Your task to perform on an android device: Open Google Chrome and open the bookmarks view Image 0: 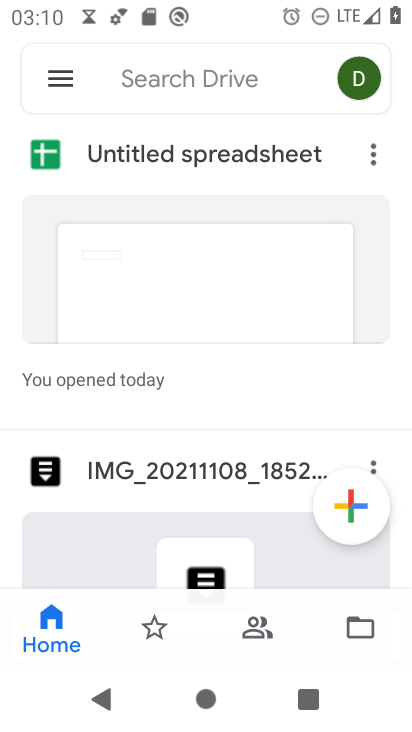
Step 0: press home button
Your task to perform on an android device: Open Google Chrome and open the bookmarks view Image 1: 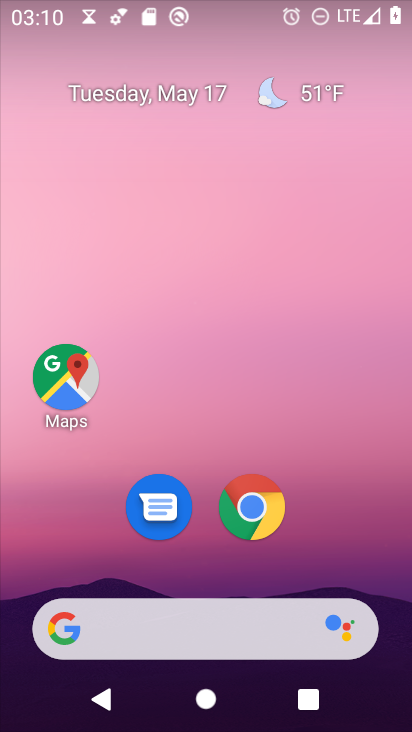
Step 1: click (242, 511)
Your task to perform on an android device: Open Google Chrome and open the bookmarks view Image 2: 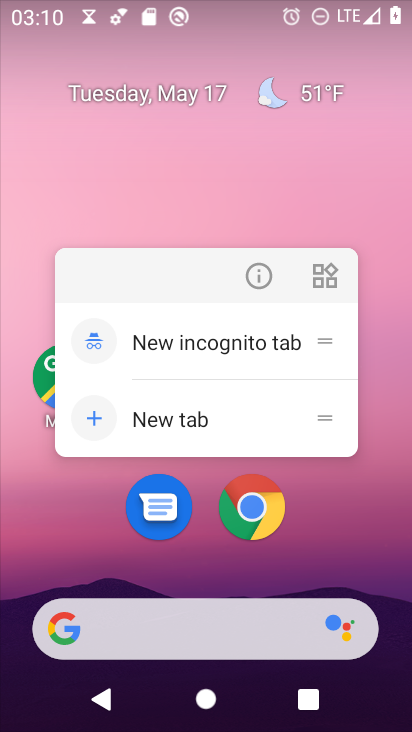
Step 2: click (238, 504)
Your task to perform on an android device: Open Google Chrome and open the bookmarks view Image 3: 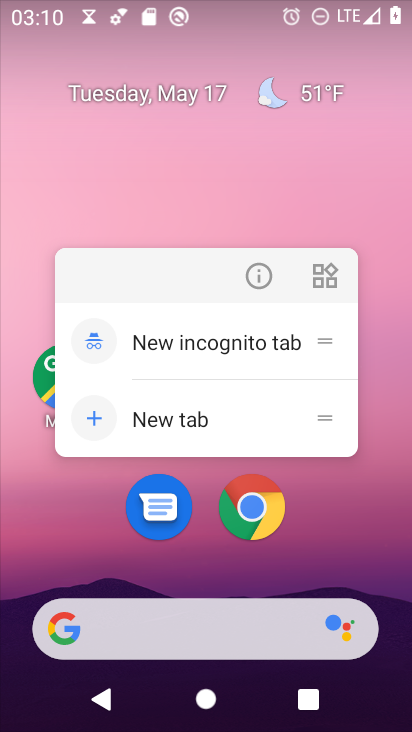
Step 3: click (238, 503)
Your task to perform on an android device: Open Google Chrome and open the bookmarks view Image 4: 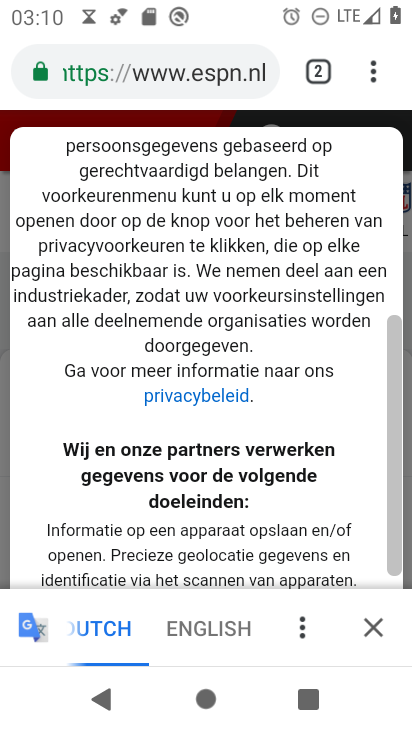
Step 4: click (374, 71)
Your task to perform on an android device: Open Google Chrome and open the bookmarks view Image 5: 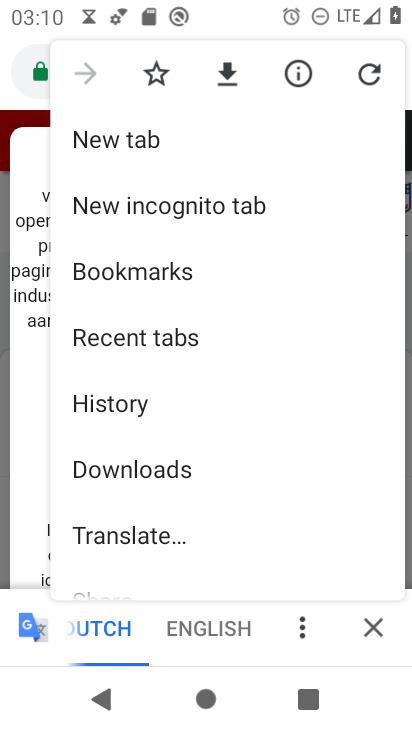
Step 5: drag from (215, 512) to (226, 310)
Your task to perform on an android device: Open Google Chrome and open the bookmarks view Image 6: 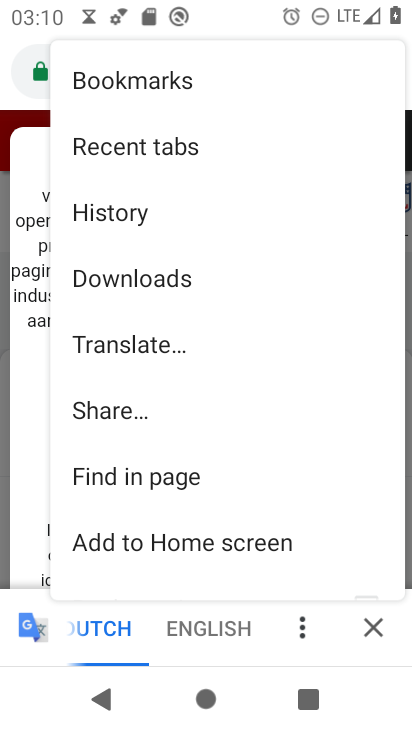
Step 6: click (176, 83)
Your task to perform on an android device: Open Google Chrome and open the bookmarks view Image 7: 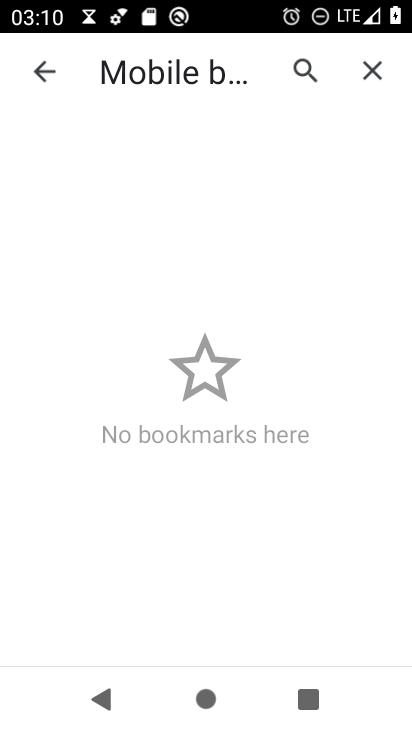
Step 7: task complete